Your task to perform on an android device: turn off sleep mode Image 0: 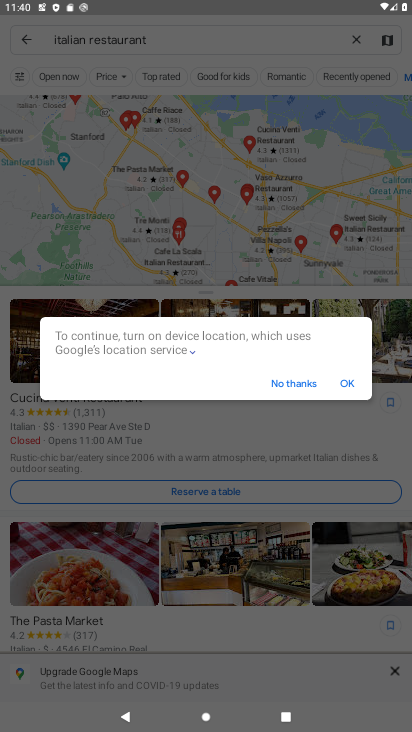
Step 0: press back button
Your task to perform on an android device: turn off sleep mode Image 1: 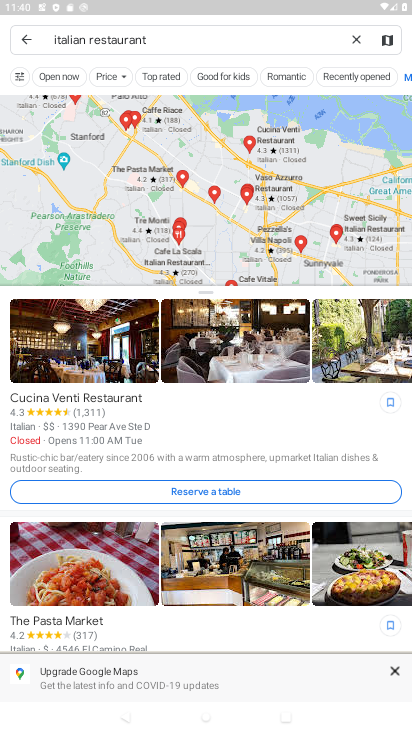
Step 1: press home button
Your task to perform on an android device: turn off sleep mode Image 2: 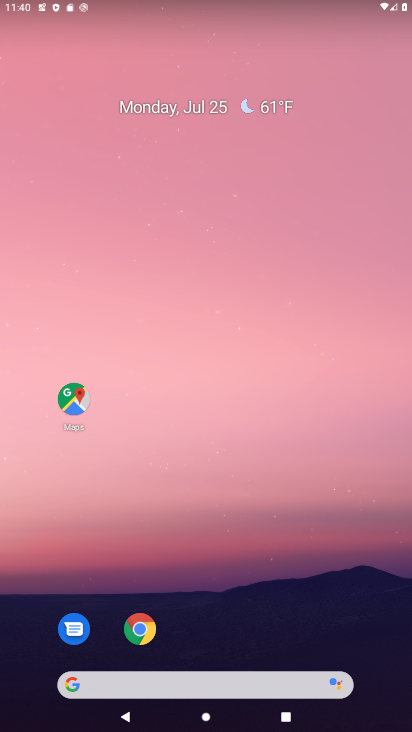
Step 2: drag from (226, 643) to (229, 188)
Your task to perform on an android device: turn off sleep mode Image 3: 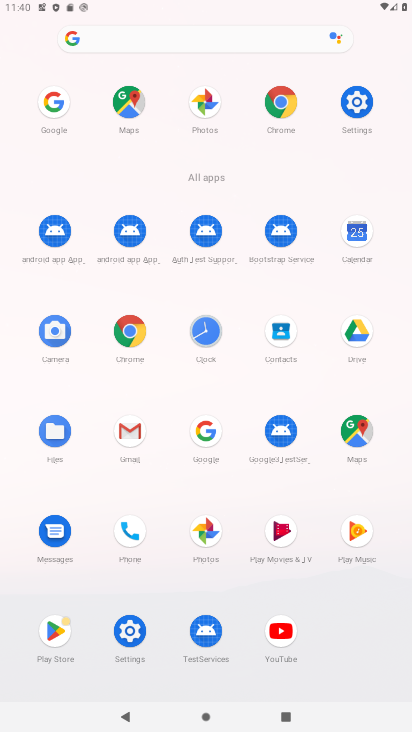
Step 3: click (348, 113)
Your task to perform on an android device: turn off sleep mode Image 4: 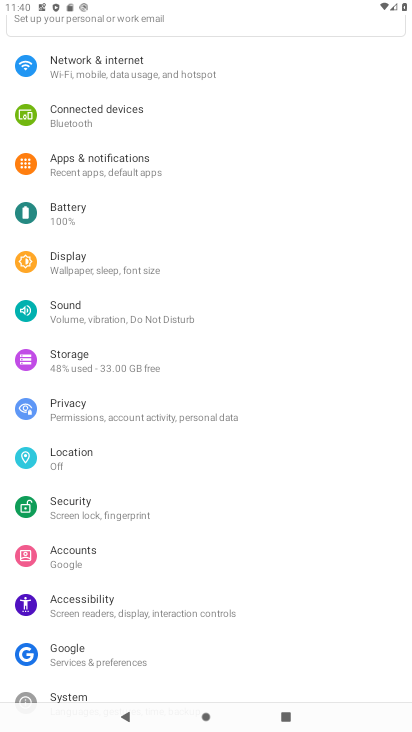
Step 4: click (103, 269)
Your task to perform on an android device: turn off sleep mode Image 5: 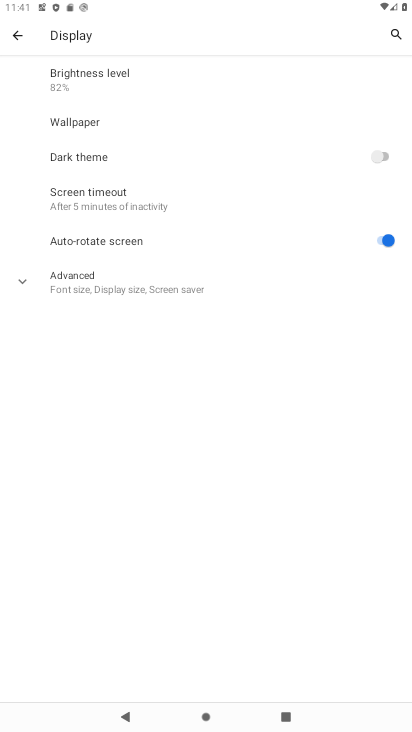
Step 5: click (82, 208)
Your task to perform on an android device: turn off sleep mode Image 6: 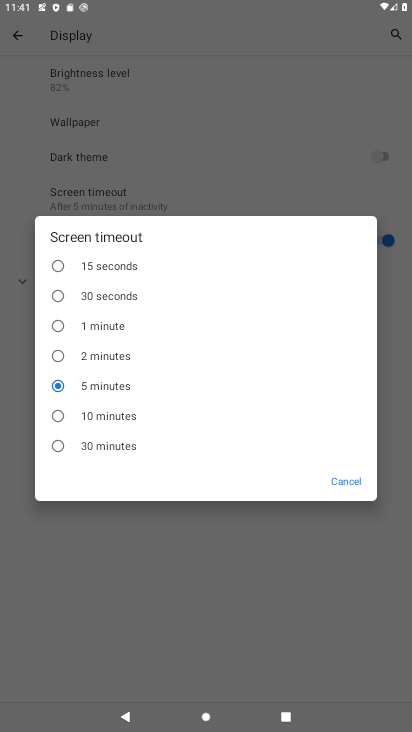
Step 6: click (92, 310)
Your task to perform on an android device: turn off sleep mode Image 7: 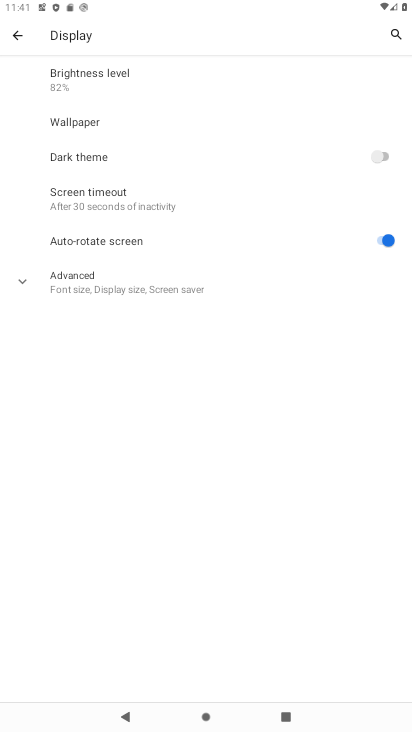
Step 7: task complete